Your task to perform on an android device: Search for the best lawnmowers on Lowes.com Image 0: 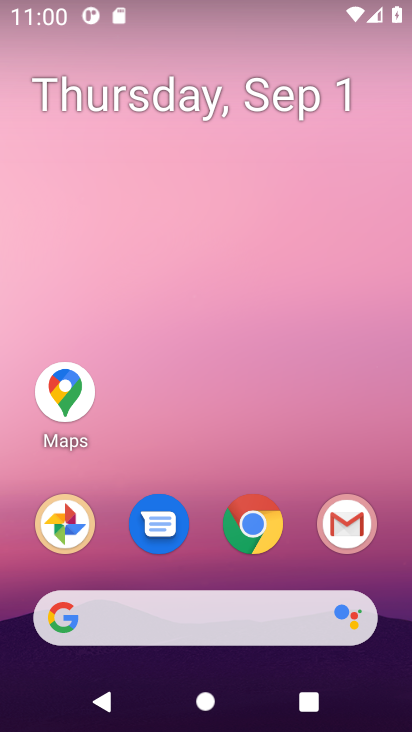
Step 0: click (215, 622)
Your task to perform on an android device: Search for the best lawnmowers on Lowes.com Image 1: 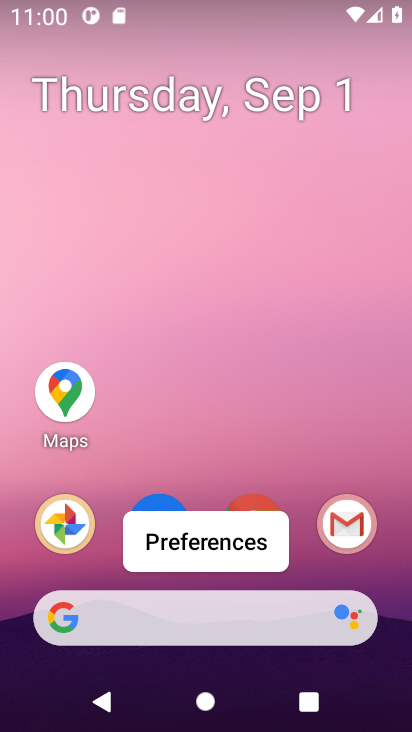
Step 1: click (213, 623)
Your task to perform on an android device: Search for the best lawnmowers on Lowes.com Image 2: 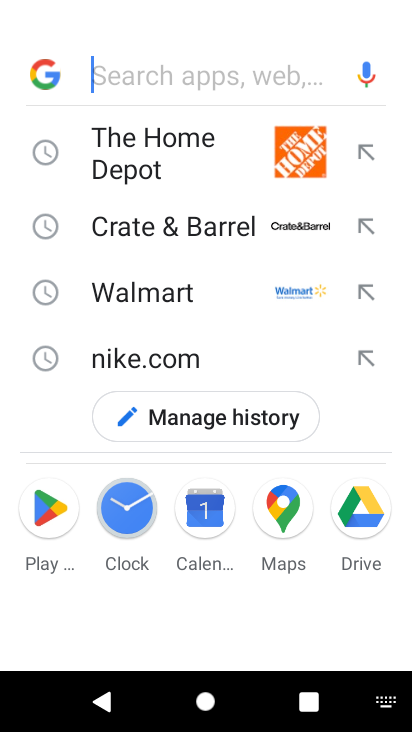
Step 2: press enter
Your task to perform on an android device: Search for the best lawnmowers on Lowes.com Image 3: 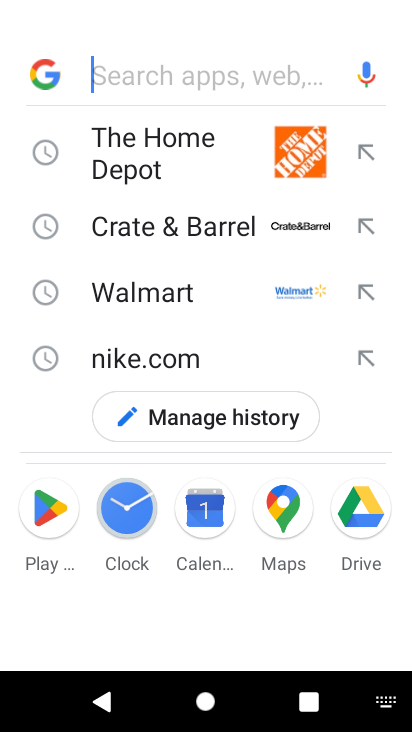
Step 3: type "lowes.com"
Your task to perform on an android device: Search for the best lawnmowers on Lowes.com Image 4: 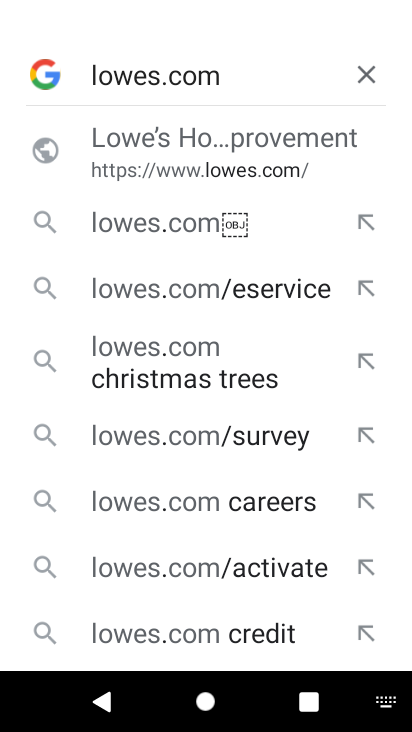
Step 4: click (174, 225)
Your task to perform on an android device: Search for the best lawnmowers on Lowes.com Image 5: 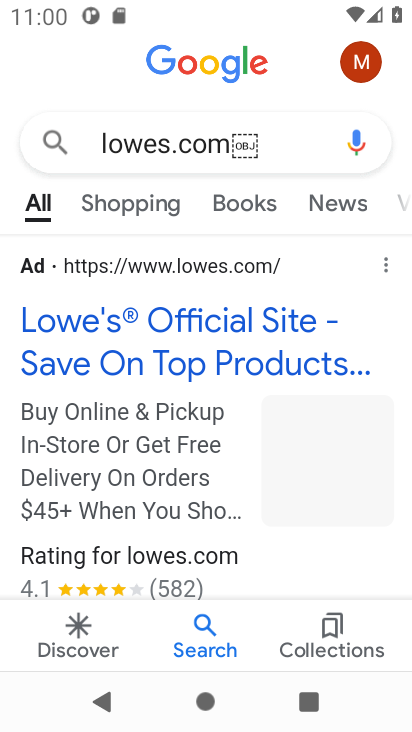
Step 5: click (189, 325)
Your task to perform on an android device: Search for the best lawnmowers on Lowes.com Image 6: 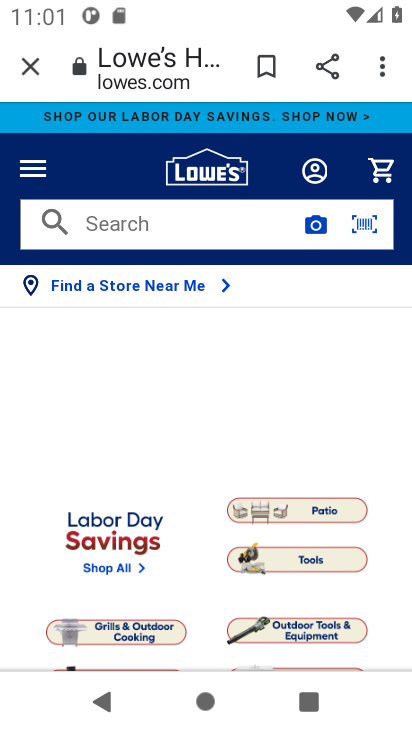
Step 6: click (167, 220)
Your task to perform on an android device: Search for the best lawnmowers on Lowes.com Image 7: 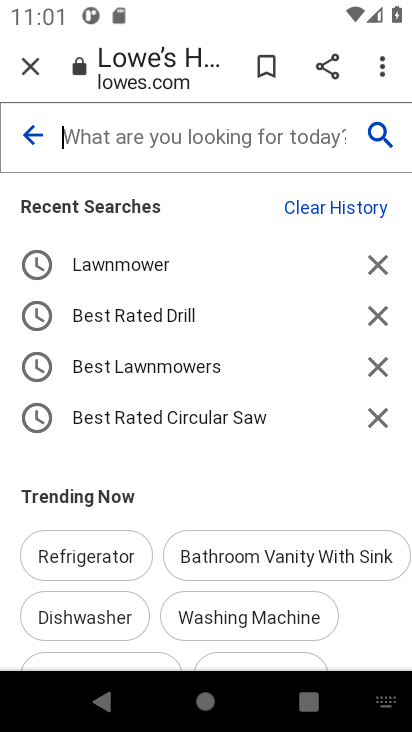
Step 7: click (171, 360)
Your task to perform on an android device: Search for the best lawnmowers on Lowes.com Image 8: 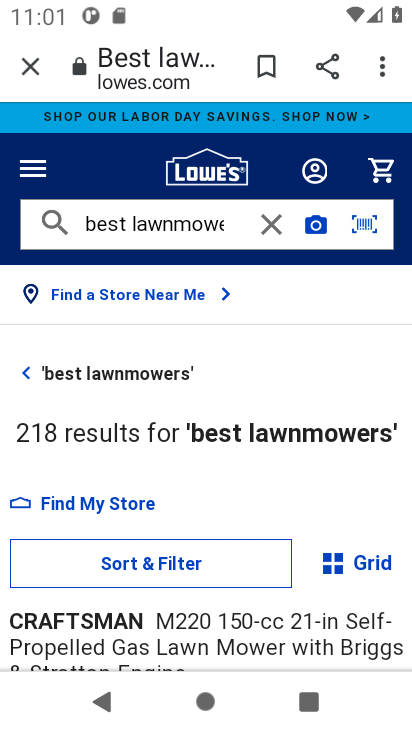
Step 8: task complete